Your task to perform on an android device: Go to notification settings Image 0: 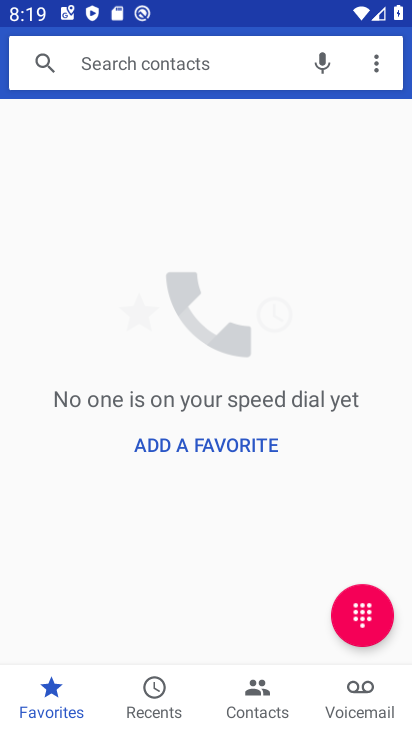
Step 0: press back button
Your task to perform on an android device: Go to notification settings Image 1: 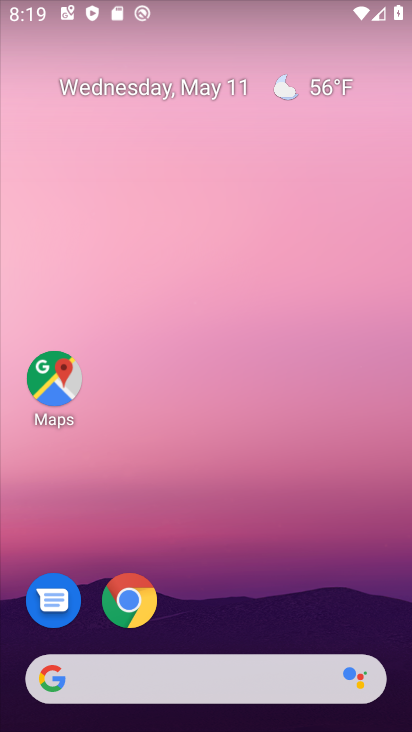
Step 1: drag from (261, 267) to (203, 54)
Your task to perform on an android device: Go to notification settings Image 2: 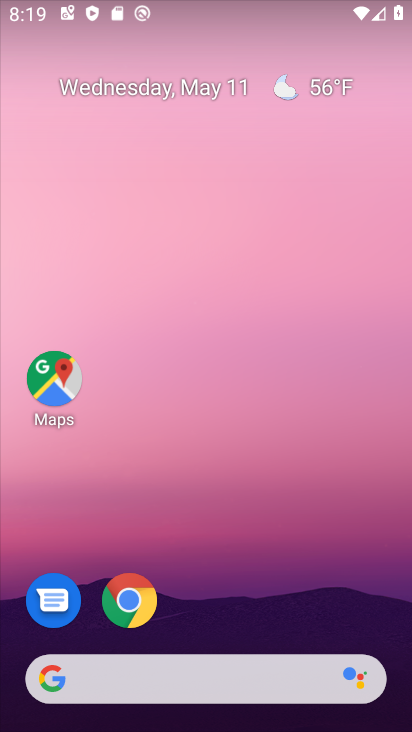
Step 2: drag from (231, 557) to (229, 26)
Your task to perform on an android device: Go to notification settings Image 3: 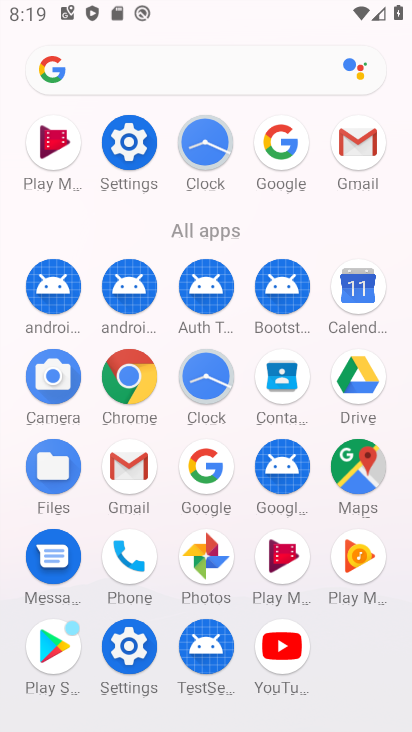
Step 3: click (130, 143)
Your task to perform on an android device: Go to notification settings Image 4: 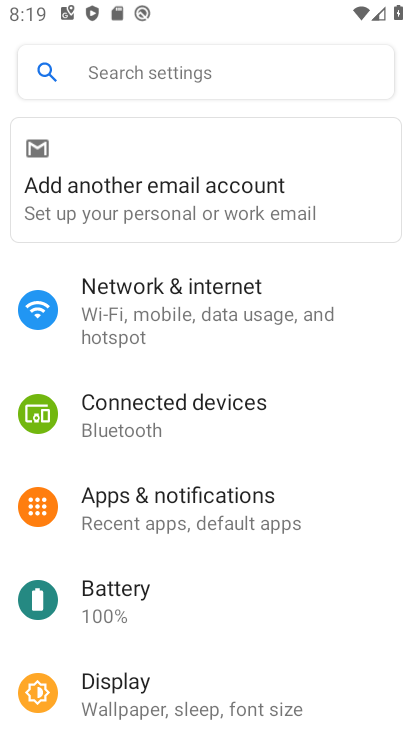
Step 4: click (191, 496)
Your task to perform on an android device: Go to notification settings Image 5: 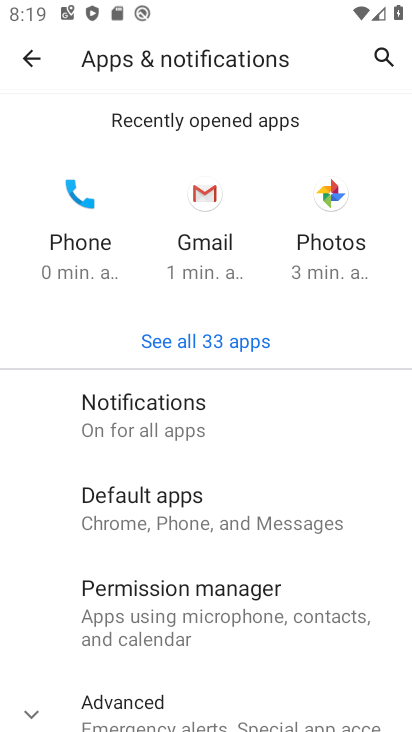
Step 5: click (160, 403)
Your task to perform on an android device: Go to notification settings Image 6: 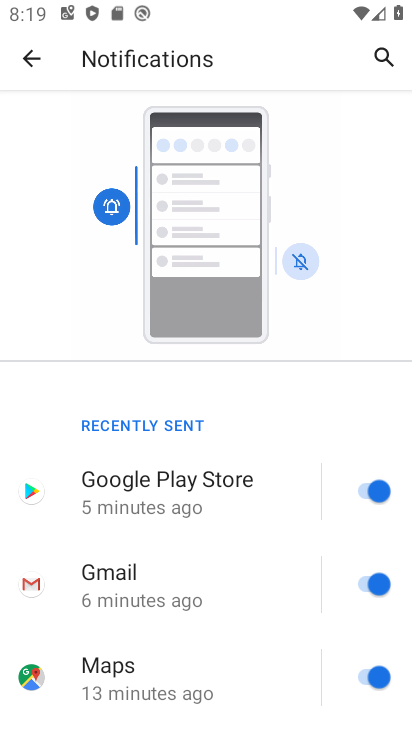
Step 6: task complete